Your task to perform on an android device: Search for a new mascara on Sephora Image 0: 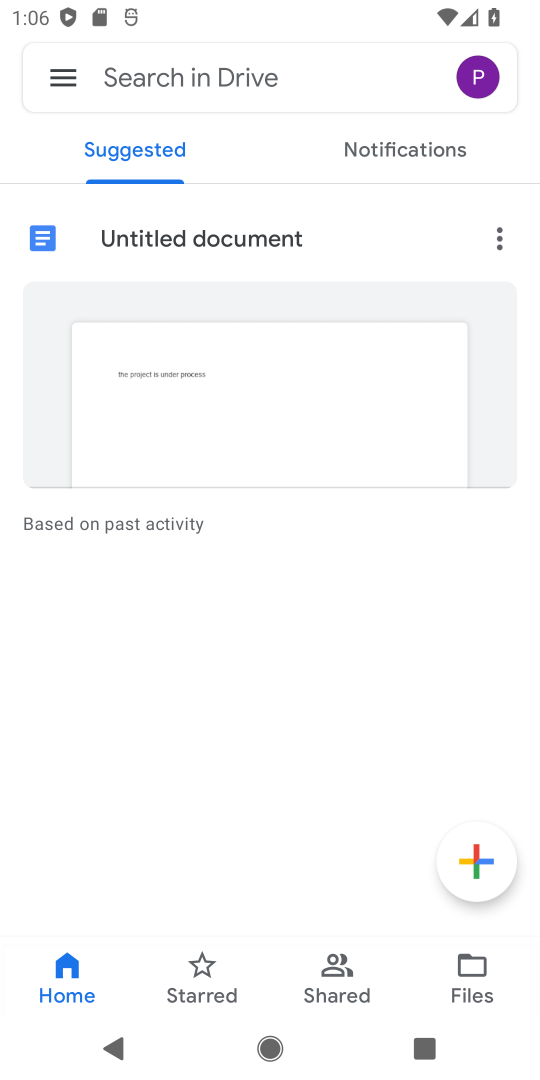
Step 0: press home button
Your task to perform on an android device: Search for a new mascara on Sephora Image 1: 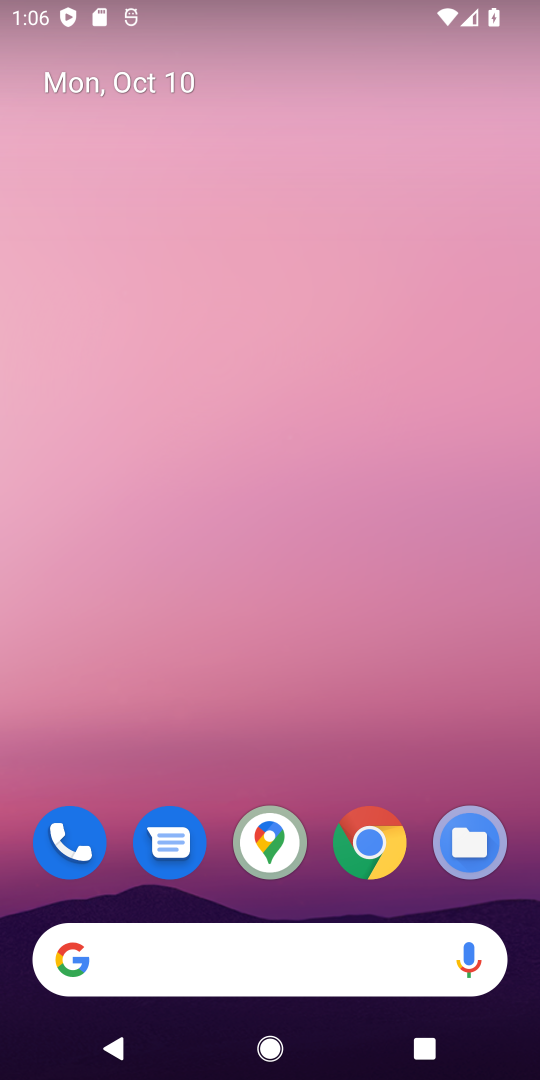
Step 1: click (363, 844)
Your task to perform on an android device: Search for a new mascara on Sephora Image 2: 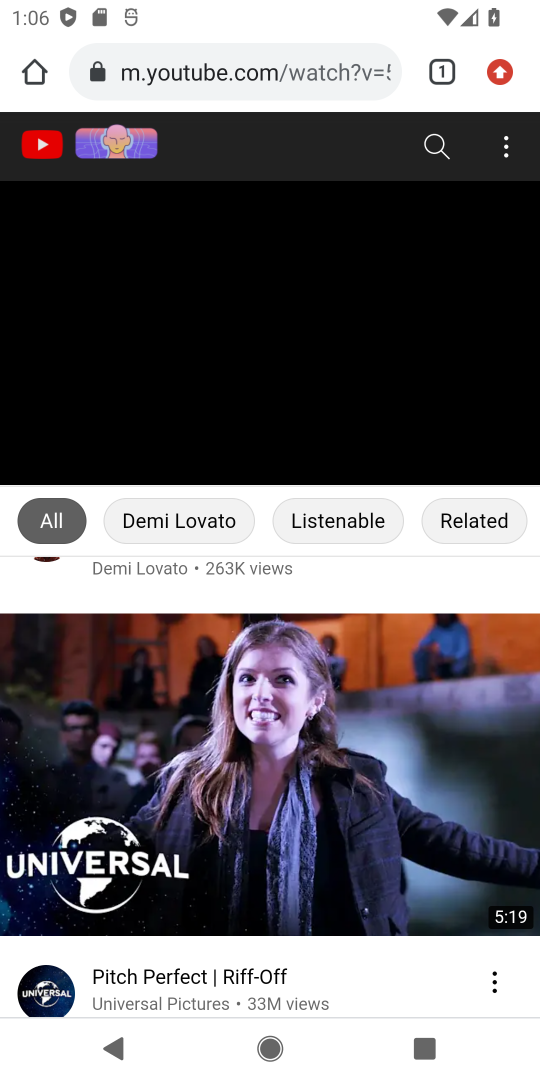
Step 2: click (262, 80)
Your task to perform on an android device: Search for a new mascara on Sephora Image 3: 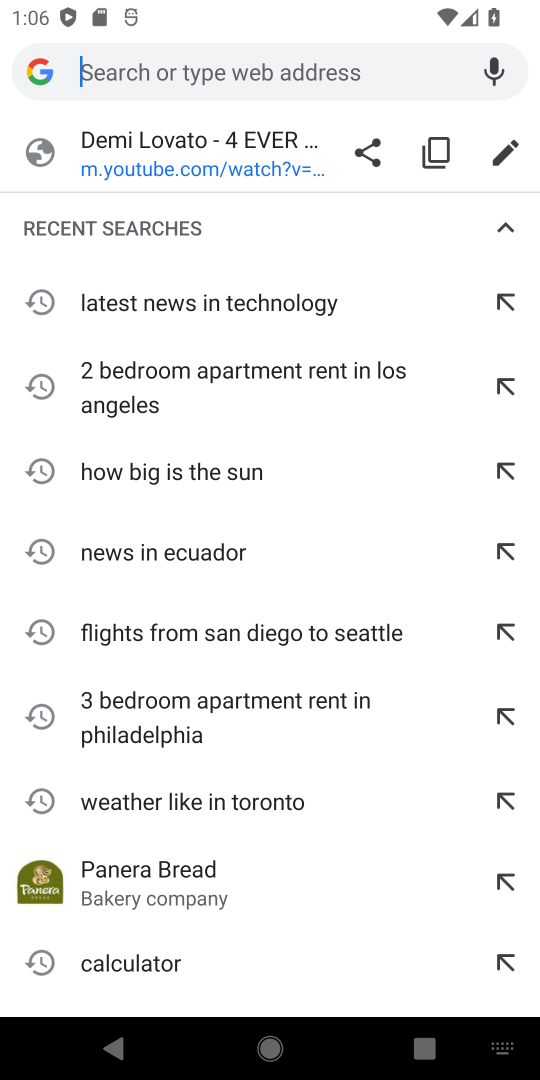
Step 3: type "sephora"
Your task to perform on an android device: Search for a new mascara on Sephora Image 4: 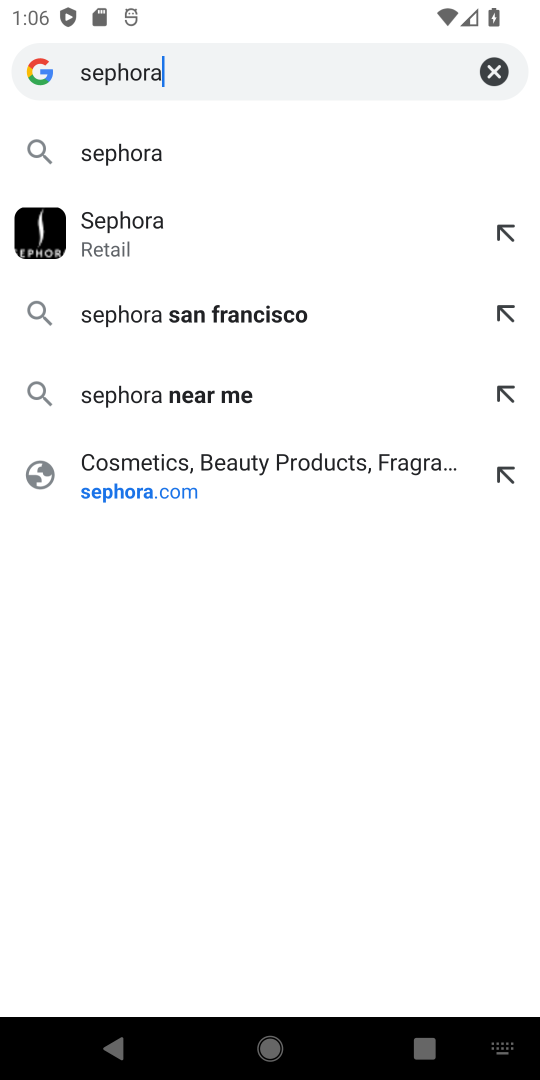
Step 4: press enter
Your task to perform on an android device: Search for a new mascara on Sephora Image 5: 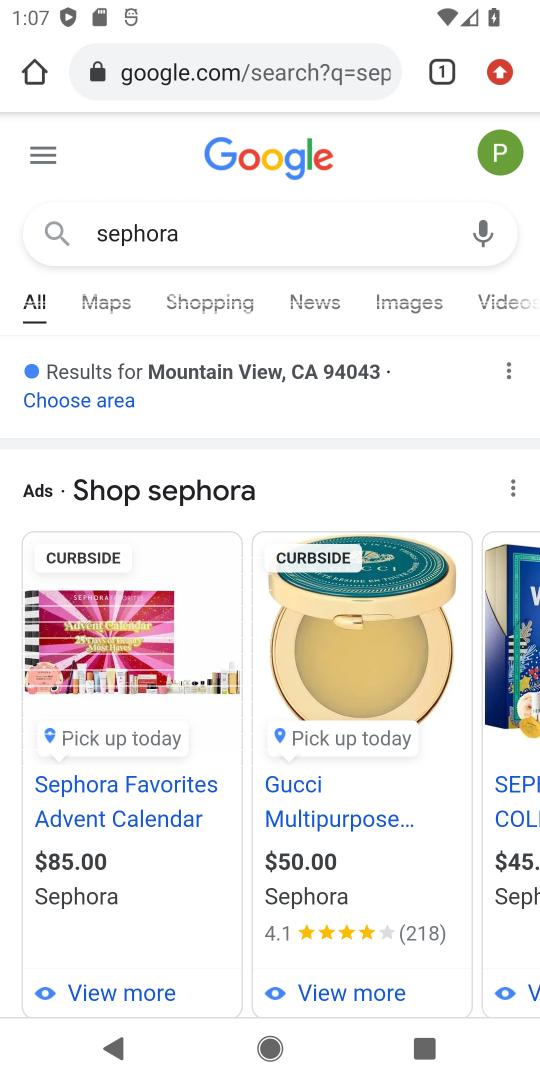
Step 5: drag from (409, 486) to (401, 197)
Your task to perform on an android device: Search for a new mascara on Sephora Image 6: 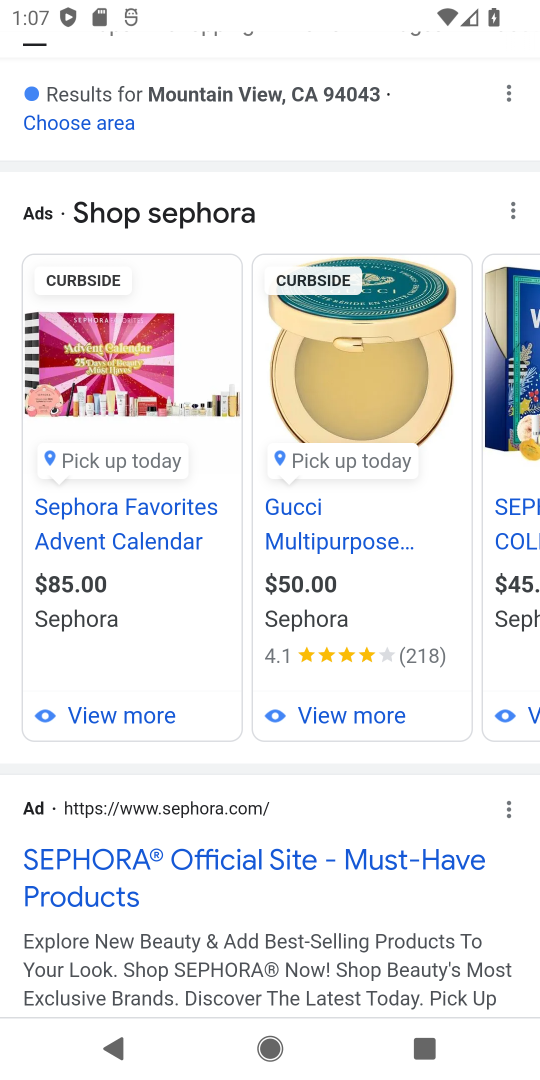
Step 6: click (357, 861)
Your task to perform on an android device: Search for a new mascara on Sephora Image 7: 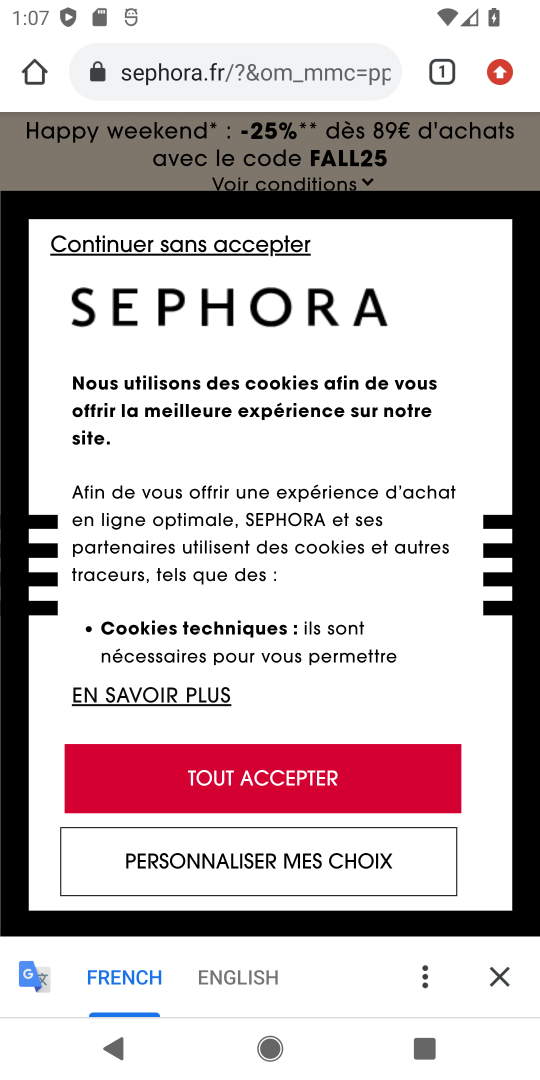
Step 7: click (244, 780)
Your task to perform on an android device: Search for a new mascara on Sephora Image 8: 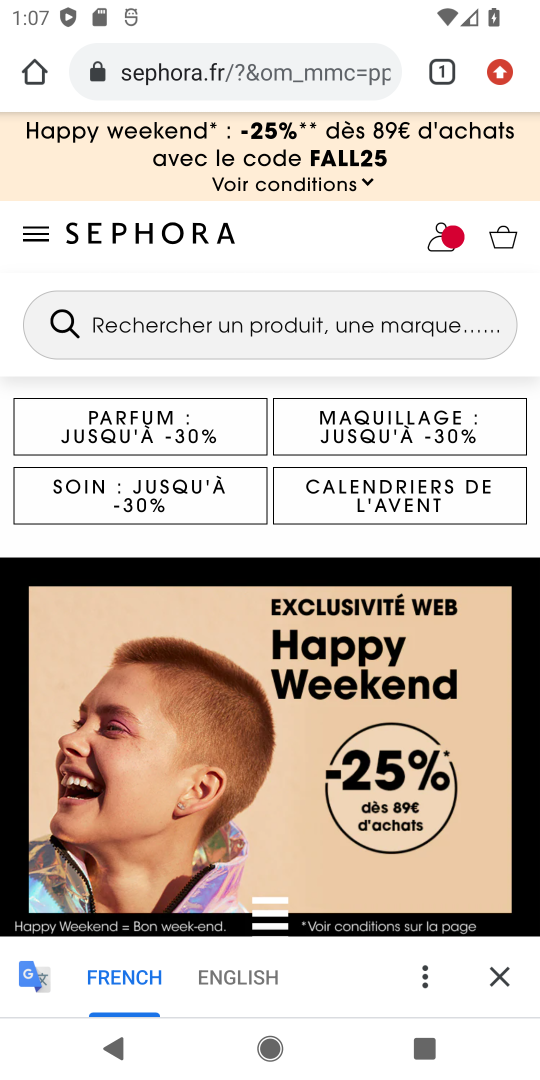
Step 8: drag from (341, 721) to (298, 402)
Your task to perform on an android device: Search for a new mascara on Sephora Image 9: 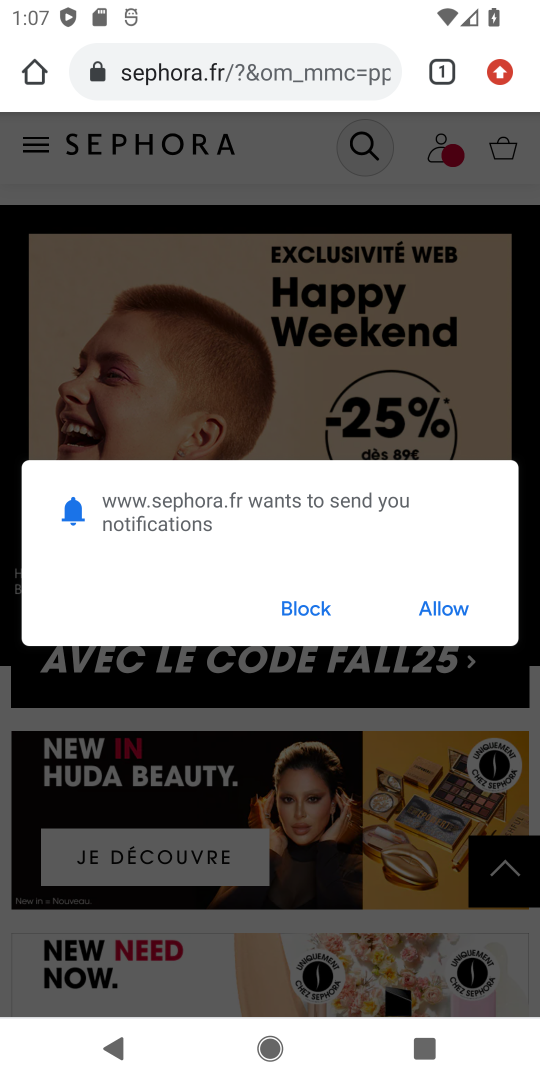
Step 9: click (470, 610)
Your task to perform on an android device: Search for a new mascara on Sephora Image 10: 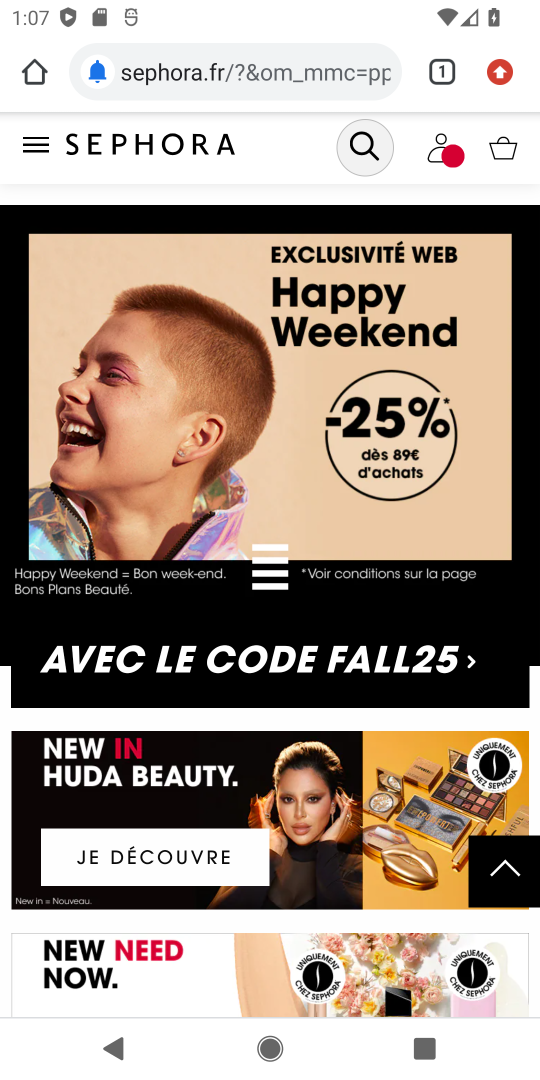
Step 10: task complete